Your task to perform on an android device: Go to Reddit.com Image 0: 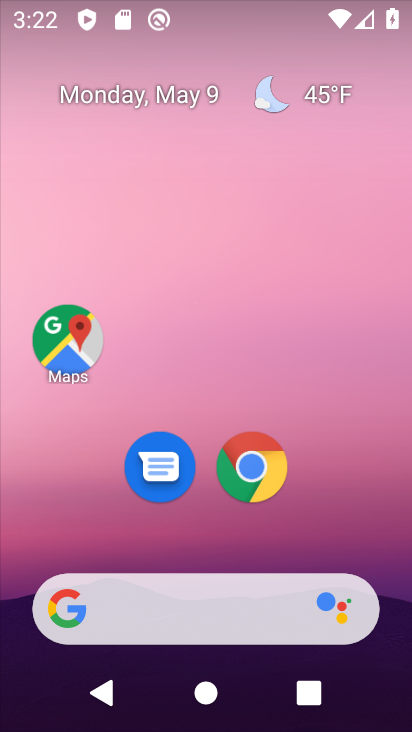
Step 0: click (275, 483)
Your task to perform on an android device: Go to Reddit.com Image 1: 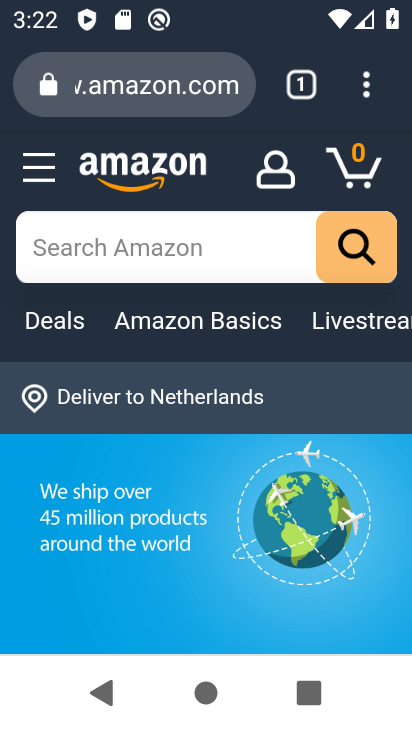
Step 1: click (181, 81)
Your task to perform on an android device: Go to Reddit.com Image 2: 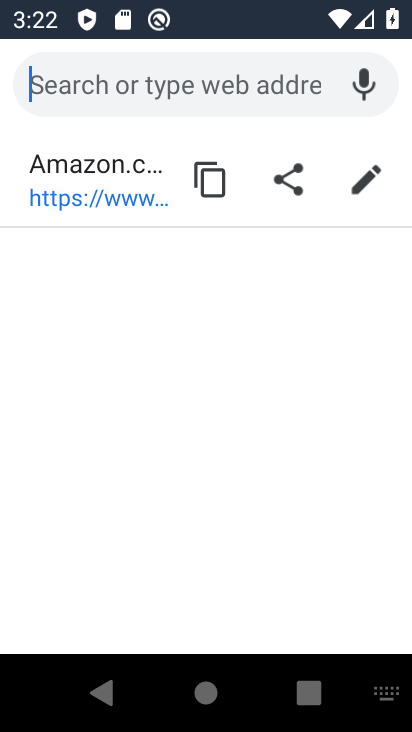
Step 2: type "reddit.com"
Your task to perform on an android device: Go to Reddit.com Image 3: 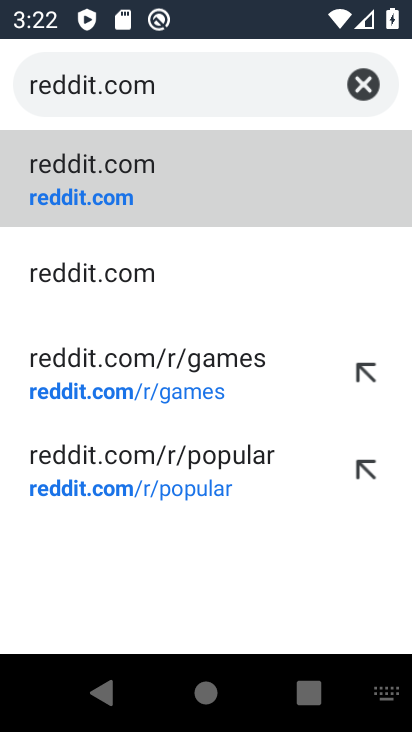
Step 3: click (142, 199)
Your task to perform on an android device: Go to Reddit.com Image 4: 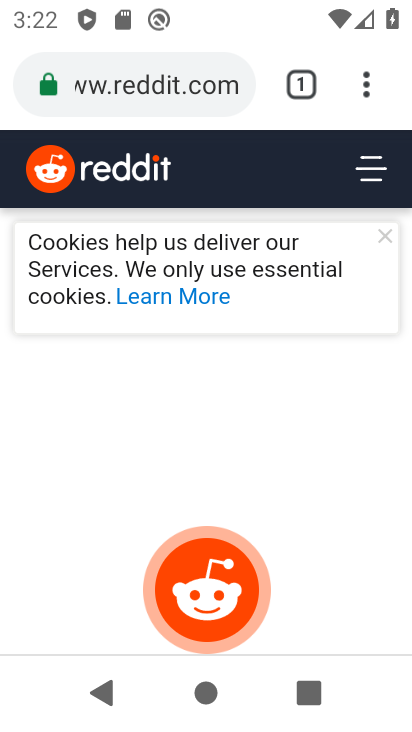
Step 4: task complete